Your task to perform on an android device: show emergency info Image 0: 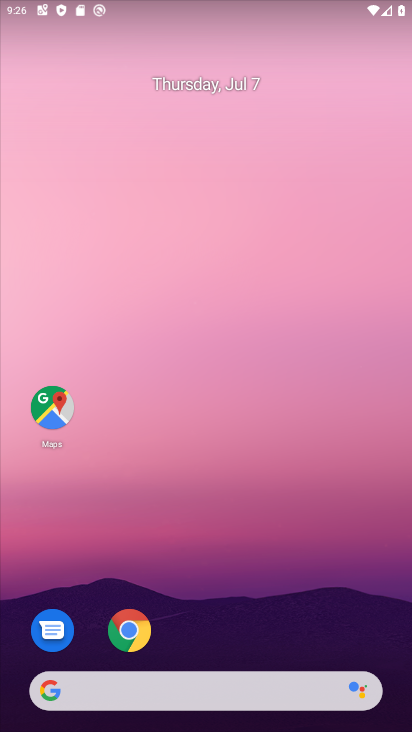
Step 0: drag from (221, 609) to (409, 207)
Your task to perform on an android device: show emergency info Image 1: 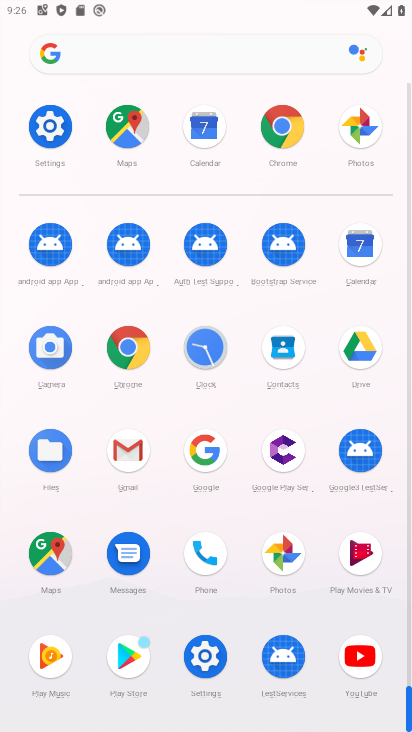
Step 1: drag from (179, 629) to (199, 364)
Your task to perform on an android device: show emergency info Image 2: 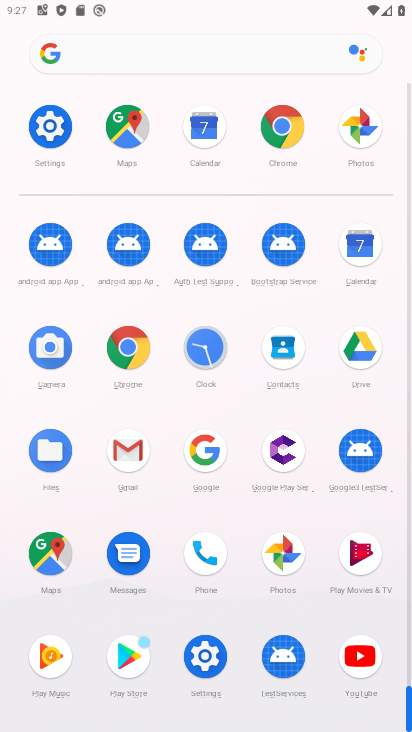
Step 2: click (54, 129)
Your task to perform on an android device: show emergency info Image 3: 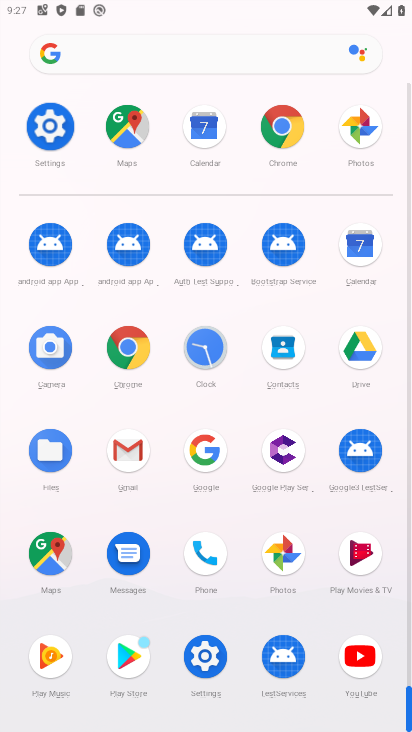
Step 3: click (53, 130)
Your task to perform on an android device: show emergency info Image 4: 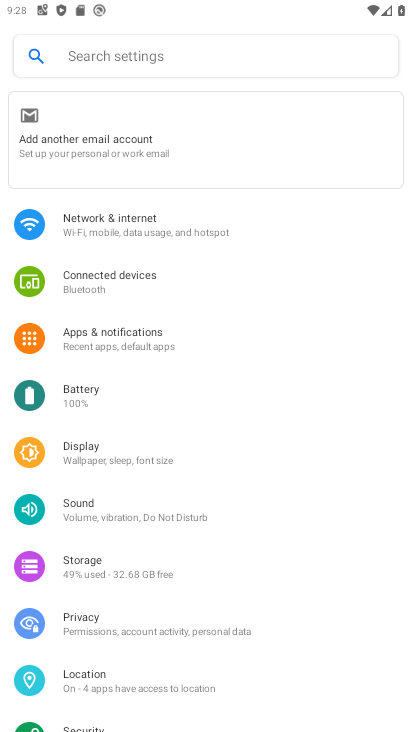
Step 4: click (262, 80)
Your task to perform on an android device: show emergency info Image 5: 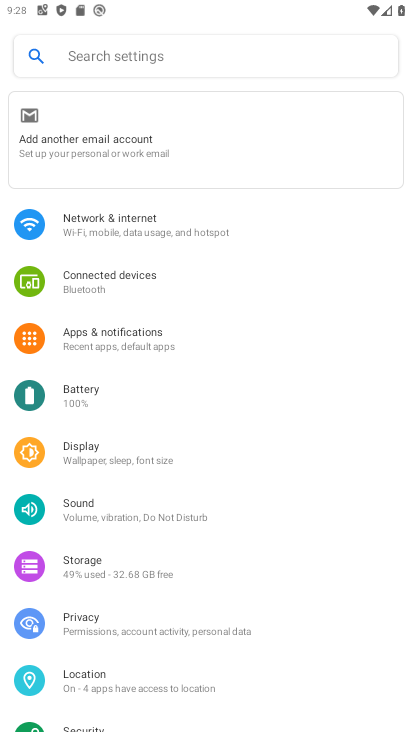
Step 5: drag from (167, 652) to (227, 81)
Your task to perform on an android device: show emergency info Image 6: 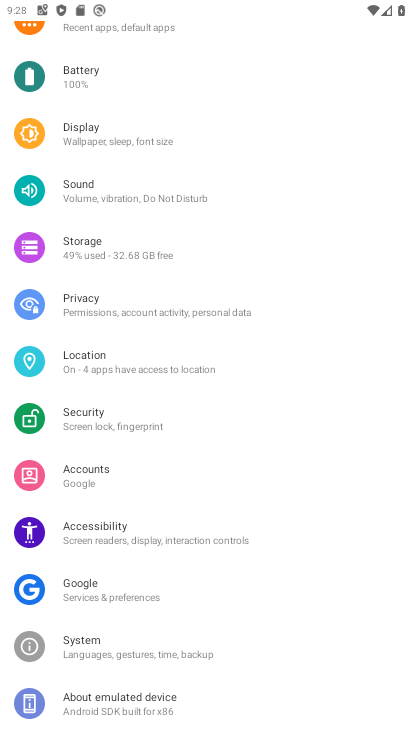
Step 6: drag from (130, 682) to (177, 131)
Your task to perform on an android device: show emergency info Image 7: 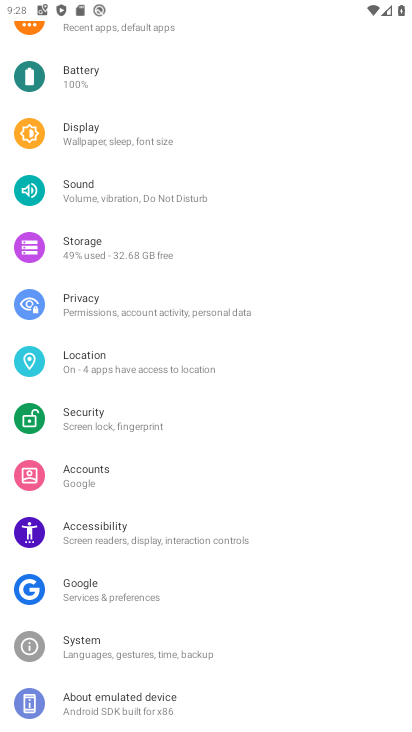
Step 7: click (147, 694)
Your task to perform on an android device: show emergency info Image 8: 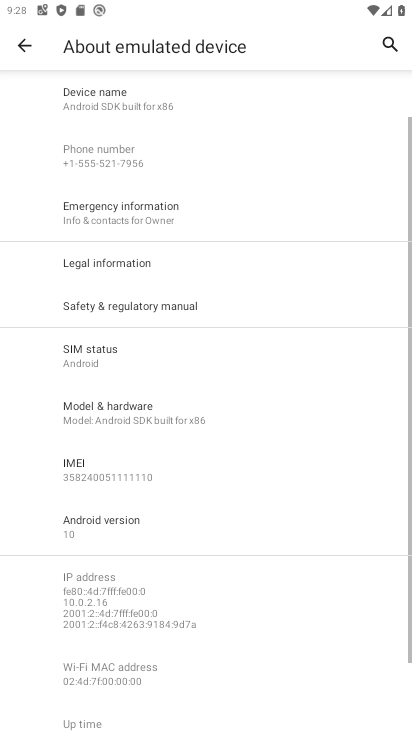
Step 8: click (259, 336)
Your task to perform on an android device: show emergency info Image 9: 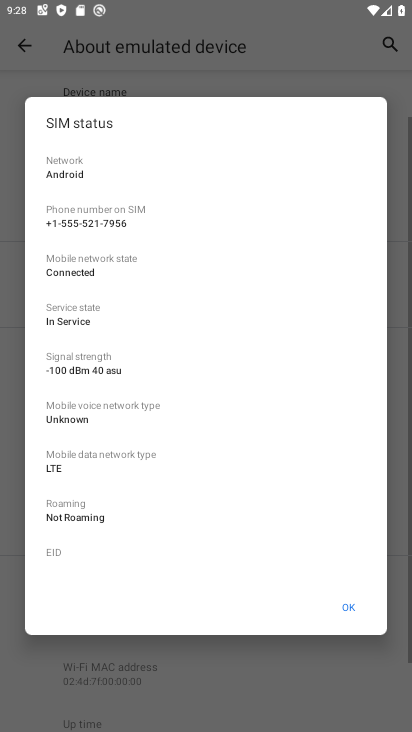
Step 9: click (345, 614)
Your task to perform on an android device: show emergency info Image 10: 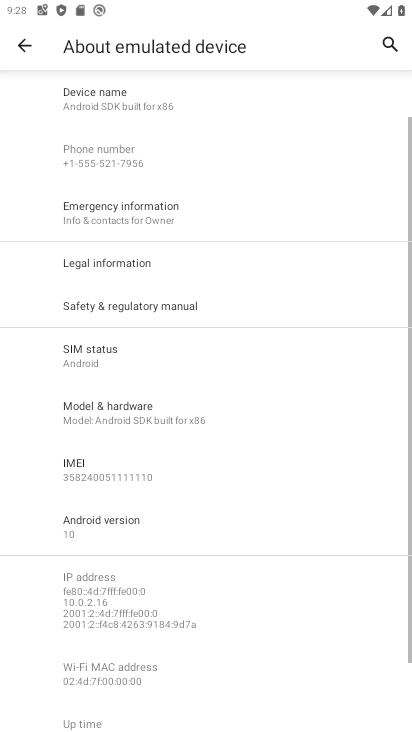
Step 10: click (157, 216)
Your task to perform on an android device: show emergency info Image 11: 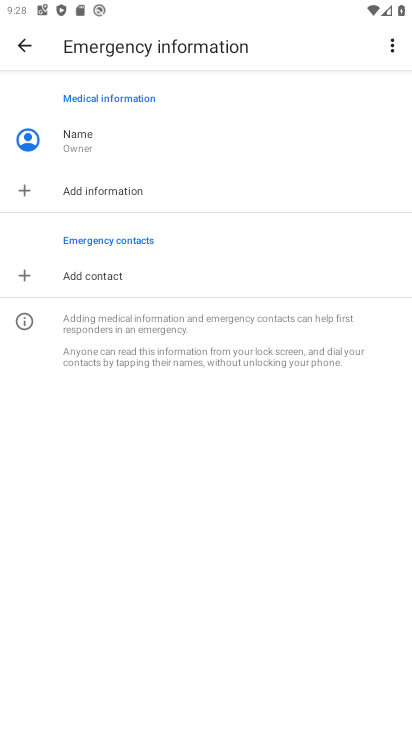
Step 11: task complete